Your task to perform on an android device: Look up the best rated 5.1 home theater speakers on Walmart. Image 0: 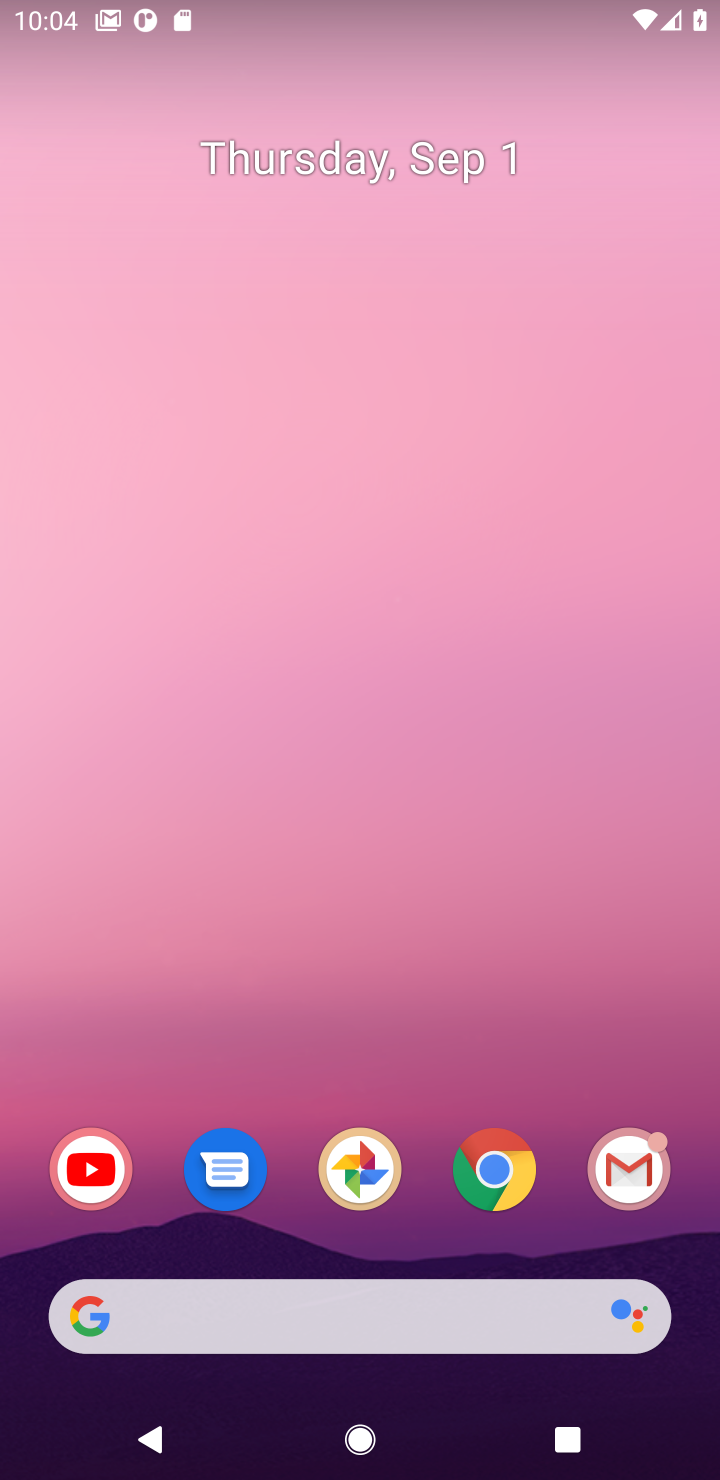
Step 0: drag from (430, 1133) to (434, 61)
Your task to perform on an android device: Look up the best rated 5.1 home theater speakers on Walmart. Image 1: 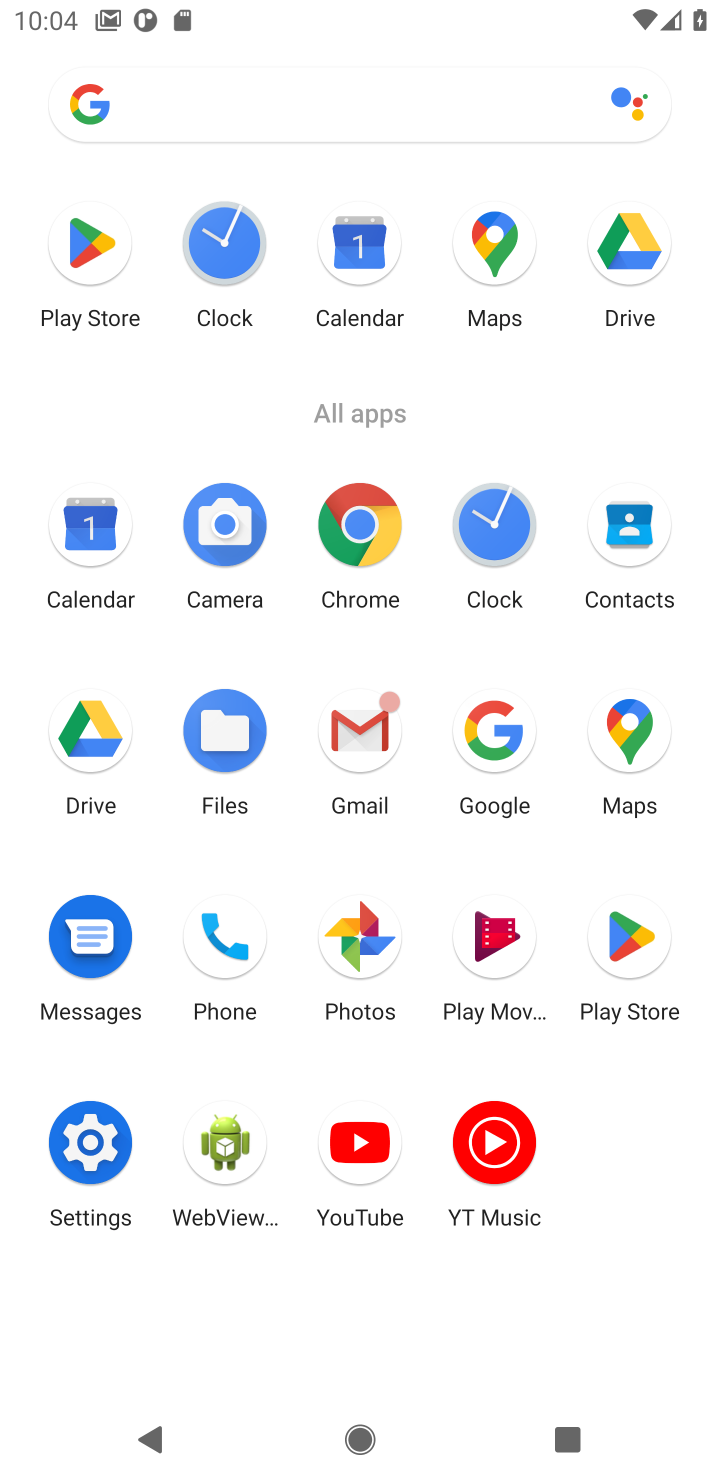
Step 1: click (357, 514)
Your task to perform on an android device: Look up the best rated 5.1 home theater speakers on Walmart. Image 2: 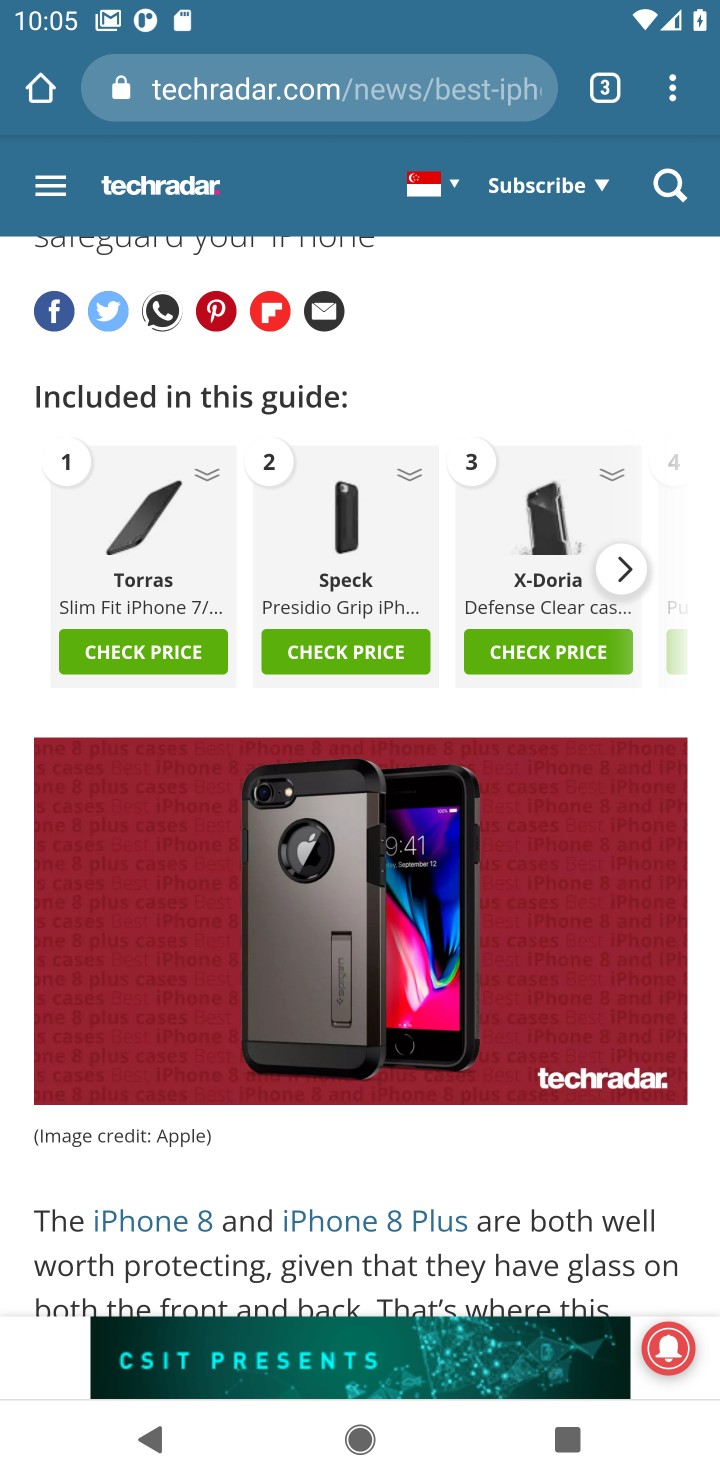
Step 2: click (236, 86)
Your task to perform on an android device: Look up the best rated 5.1 home theater speakers on Walmart. Image 3: 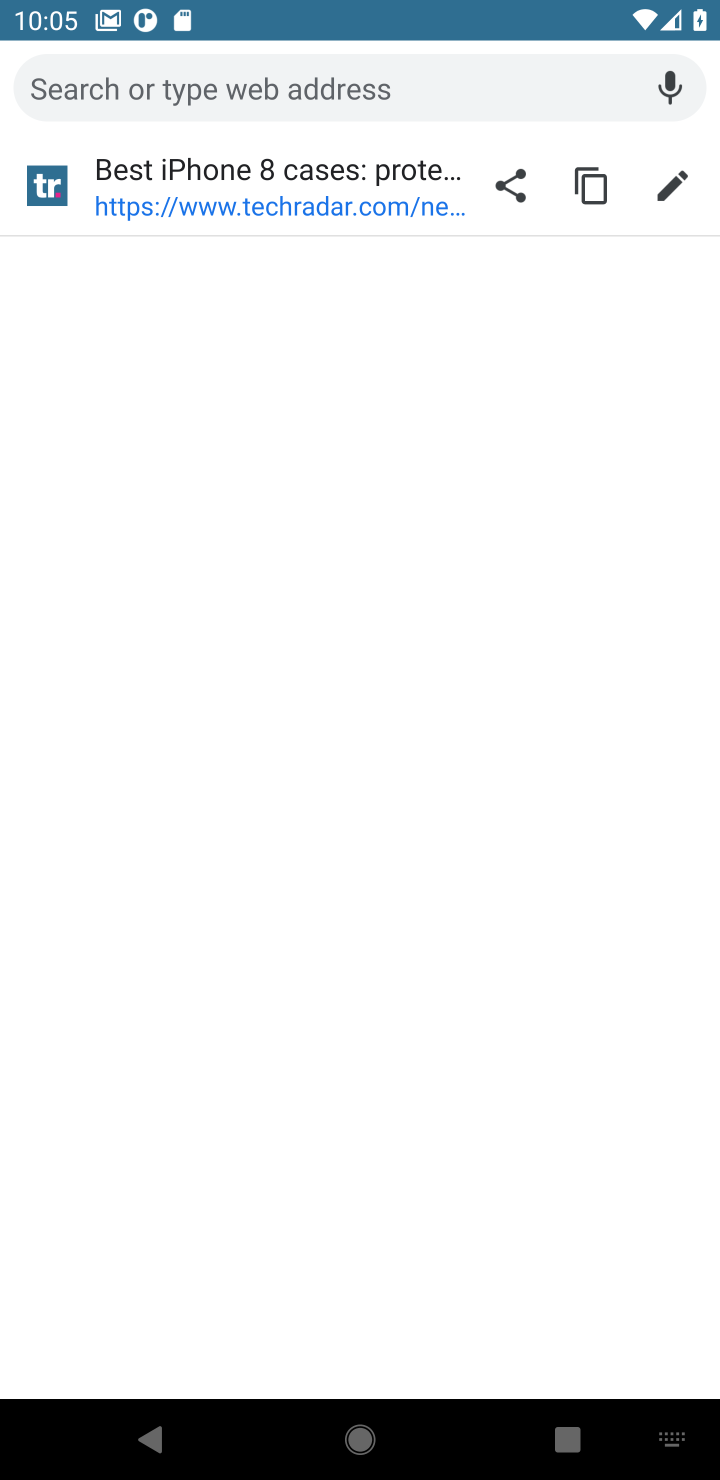
Step 3: type "best rated 5.1 home theater speakers on Walmart"
Your task to perform on an android device: Look up the best rated 5.1 home theater speakers on Walmart. Image 4: 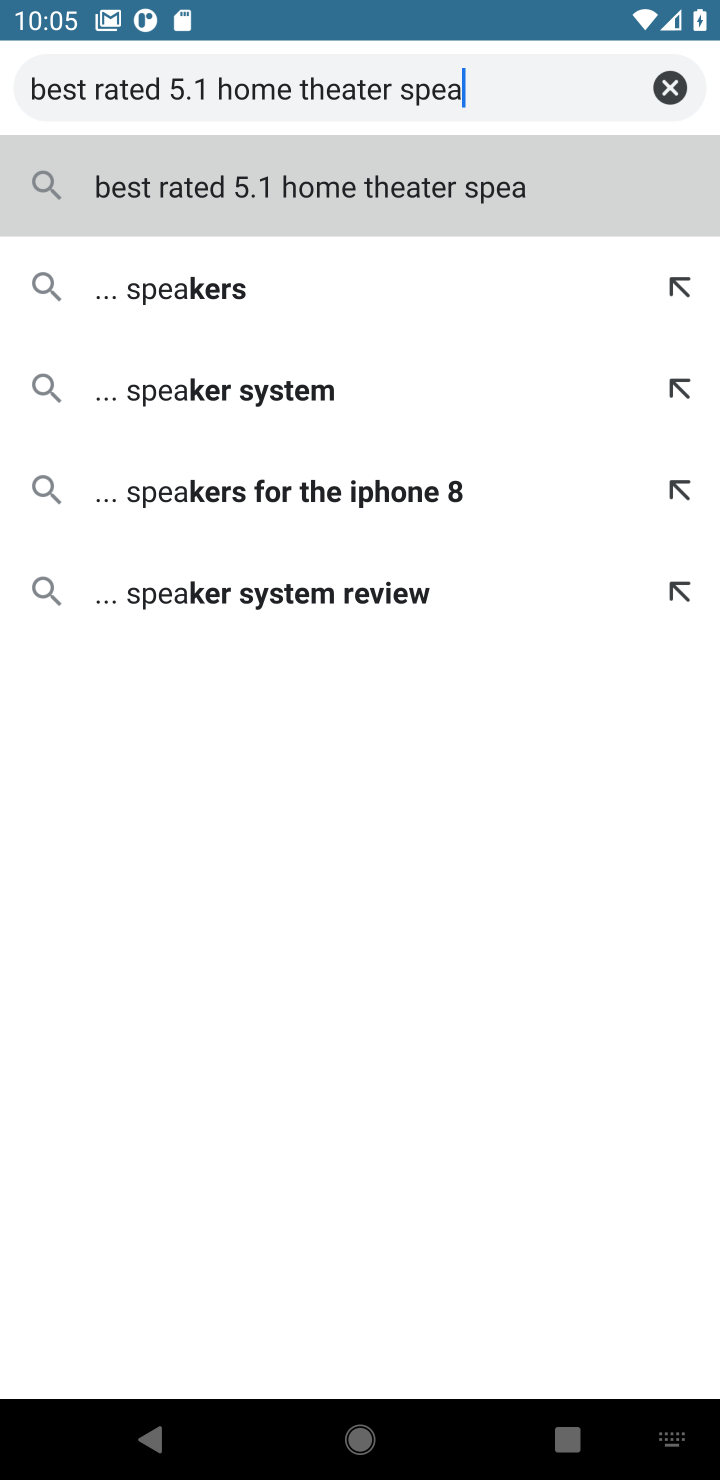
Step 4: type "kers on Walmart"
Your task to perform on an android device: Look up the best rated 5.1 home theater speakers on Walmart. Image 5: 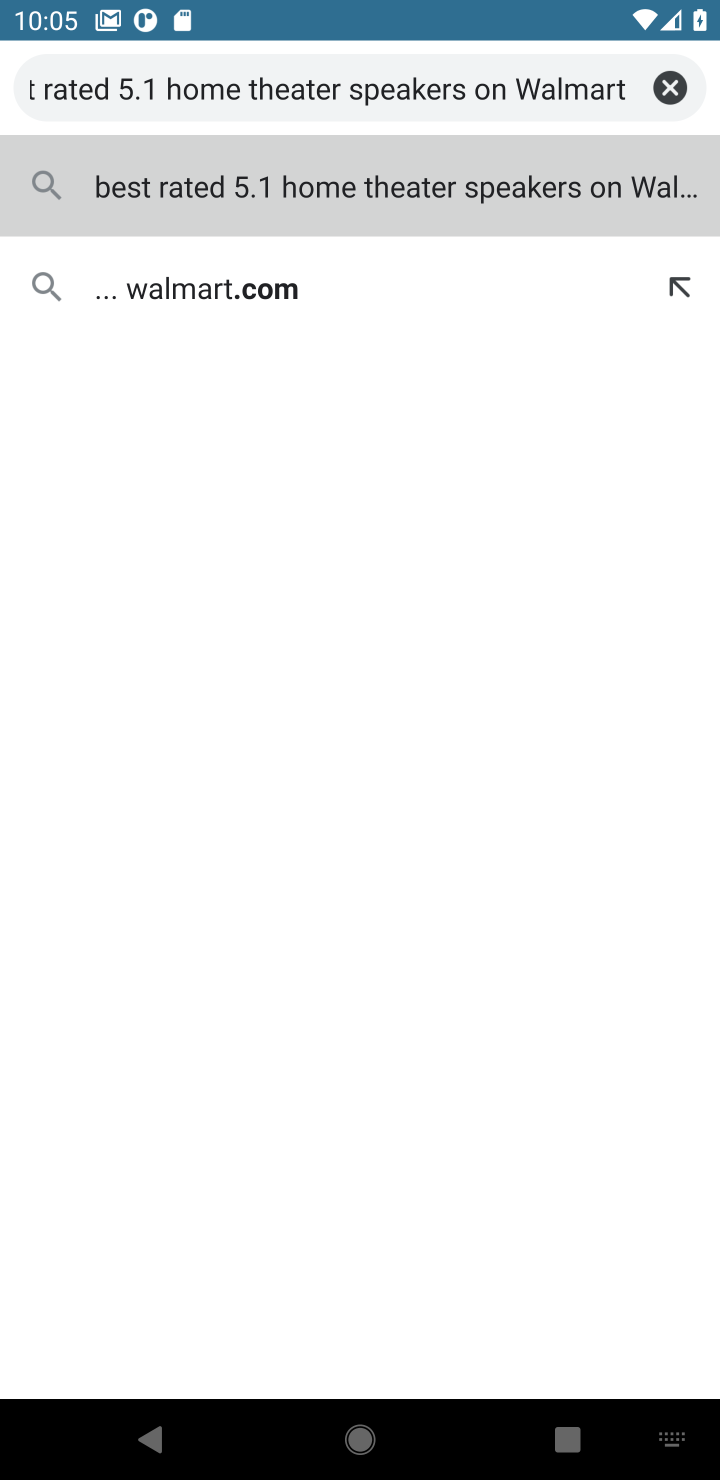
Step 5: click (417, 177)
Your task to perform on an android device: Look up the best rated 5.1 home theater speakers on Walmart. Image 6: 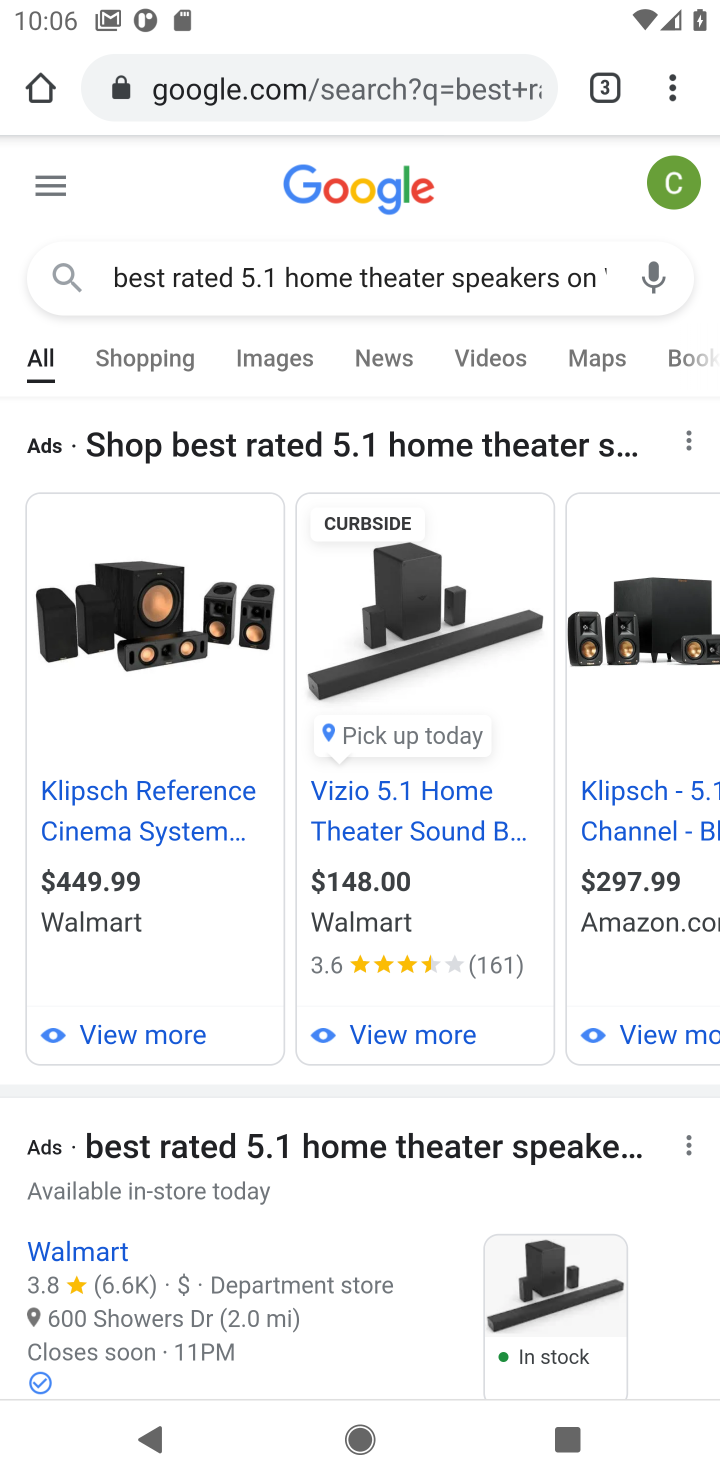
Step 6: drag from (307, 1226) to (295, 501)
Your task to perform on an android device: Look up the best rated 5.1 home theater speakers on Walmart. Image 7: 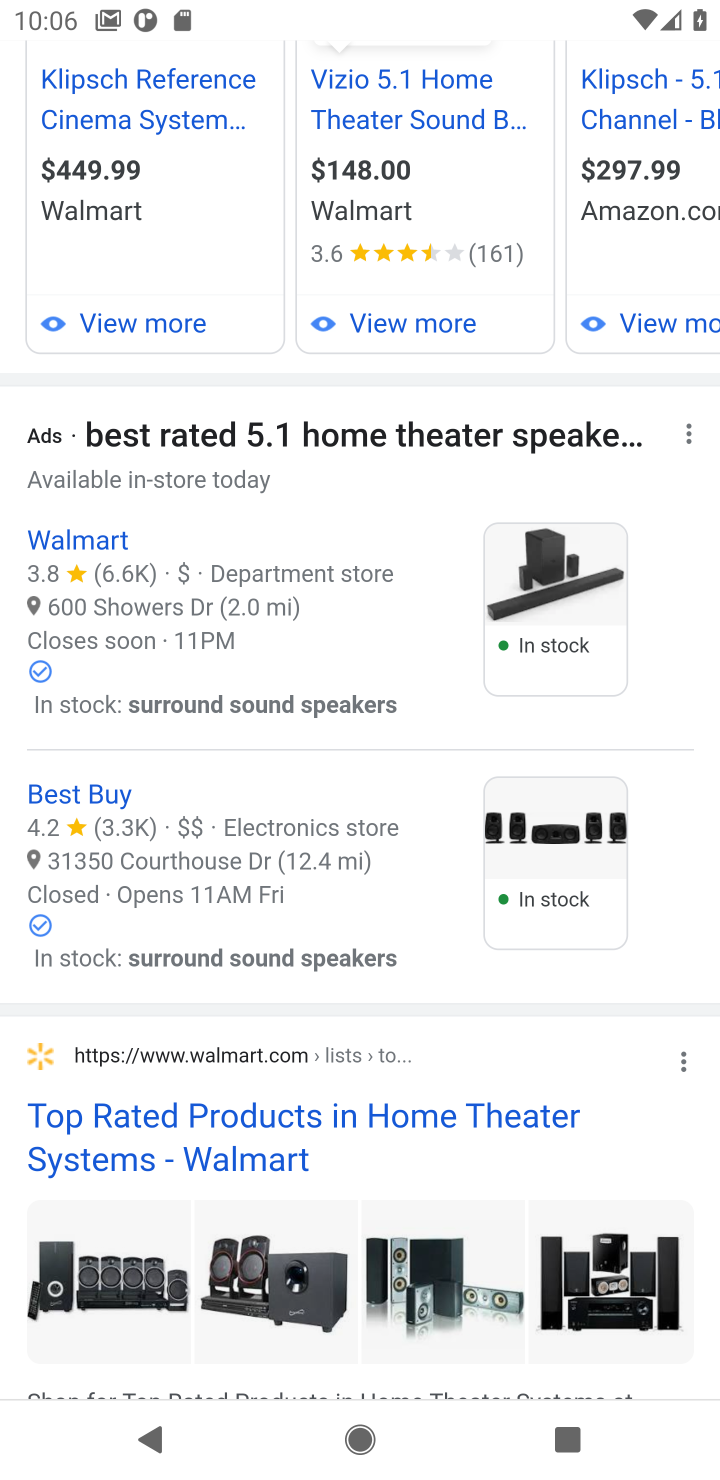
Step 7: drag from (351, 1204) to (386, 255)
Your task to perform on an android device: Look up the best rated 5.1 home theater speakers on Walmart. Image 8: 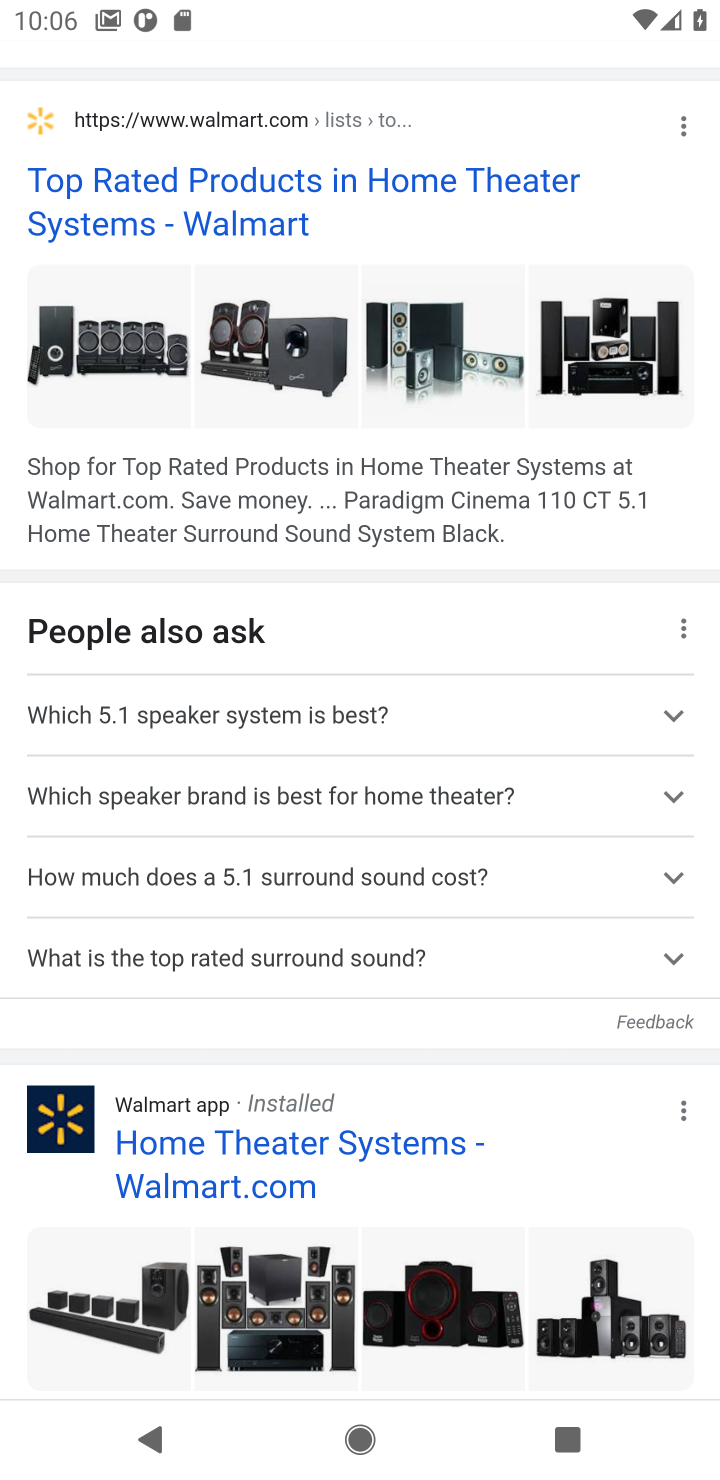
Step 8: drag from (348, 1127) to (298, 511)
Your task to perform on an android device: Look up the best rated 5.1 home theater speakers on Walmart. Image 9: 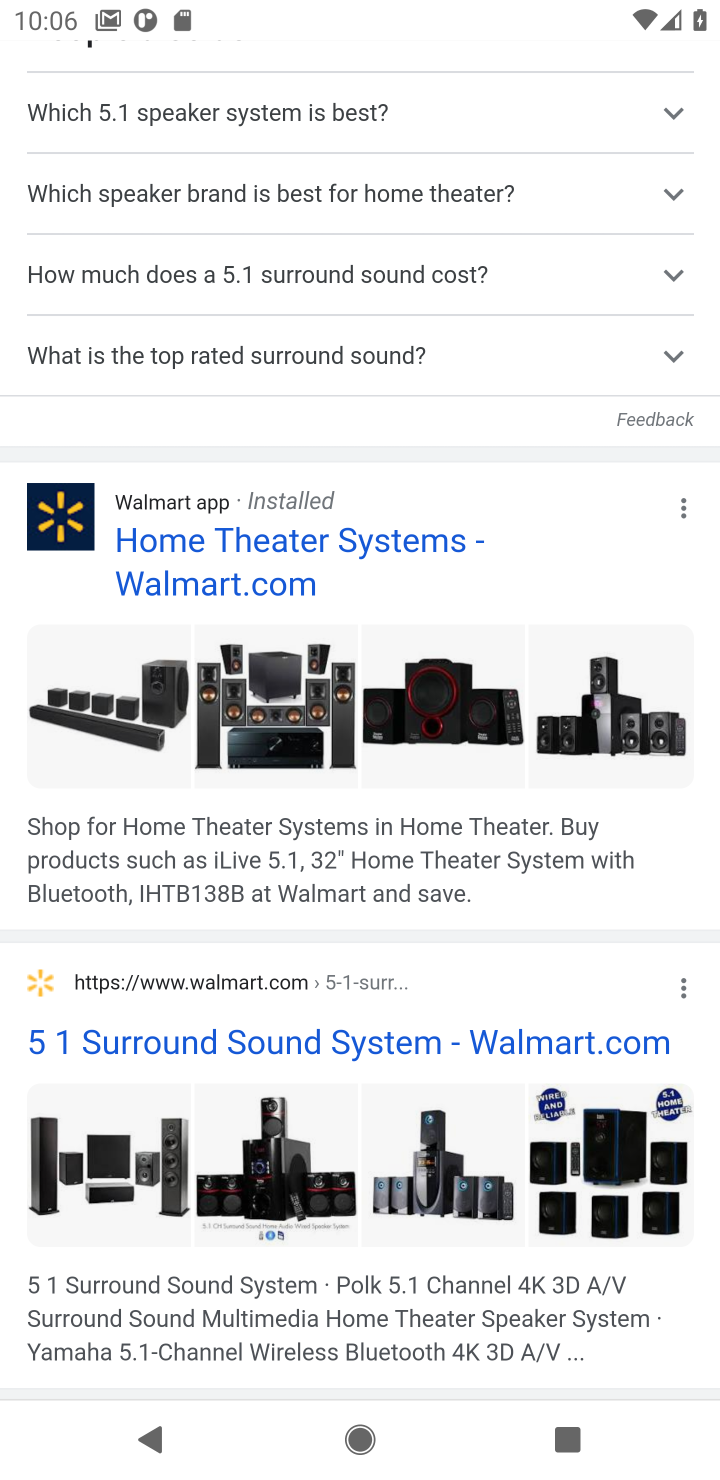
Step 9: click (287, 1048)
Your task to perform on an android device: Look up the best rated 5.1 home theater speakers on Walmart. Image 10: 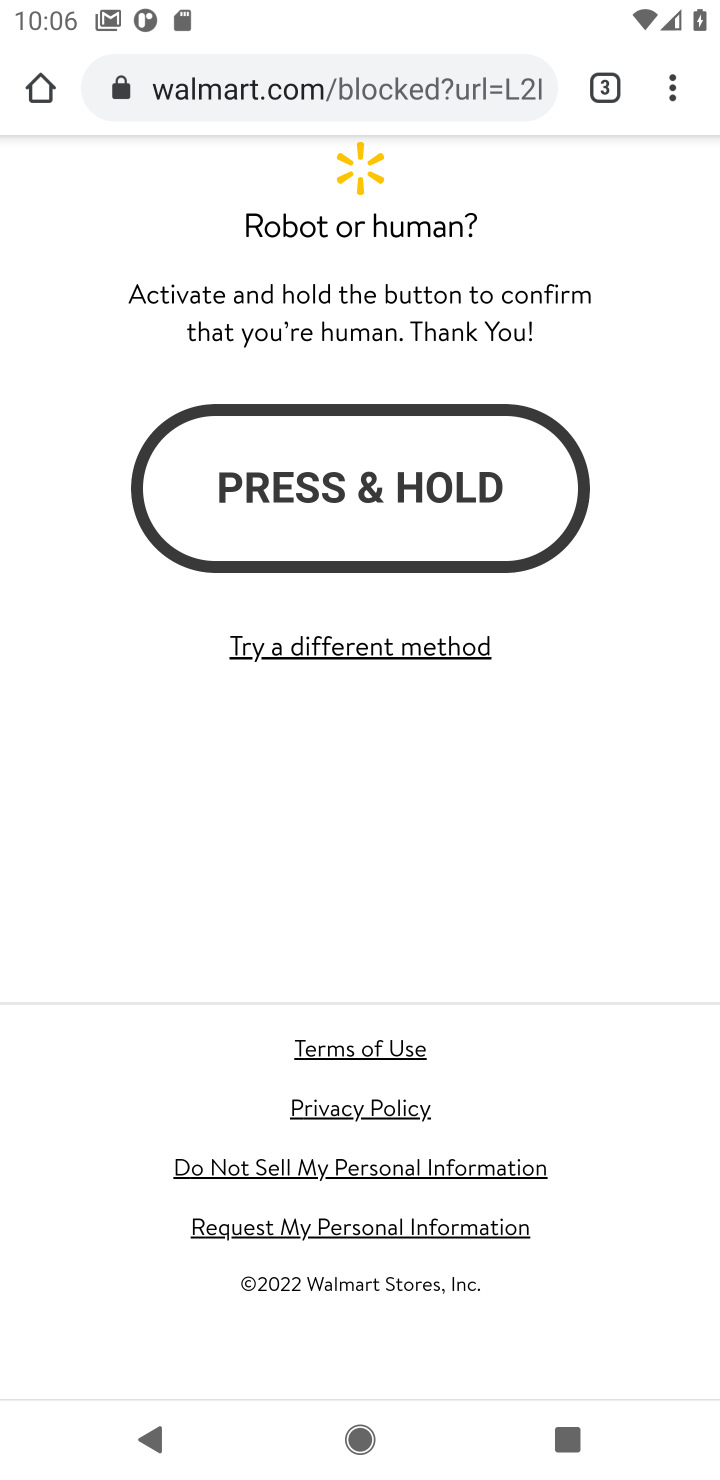
Step 10: drag from (308, 1144) to (284, 447)
Your task to perform on an android device: Look up the best rated 5.1 home theater speakers on Walmart. Image 11: 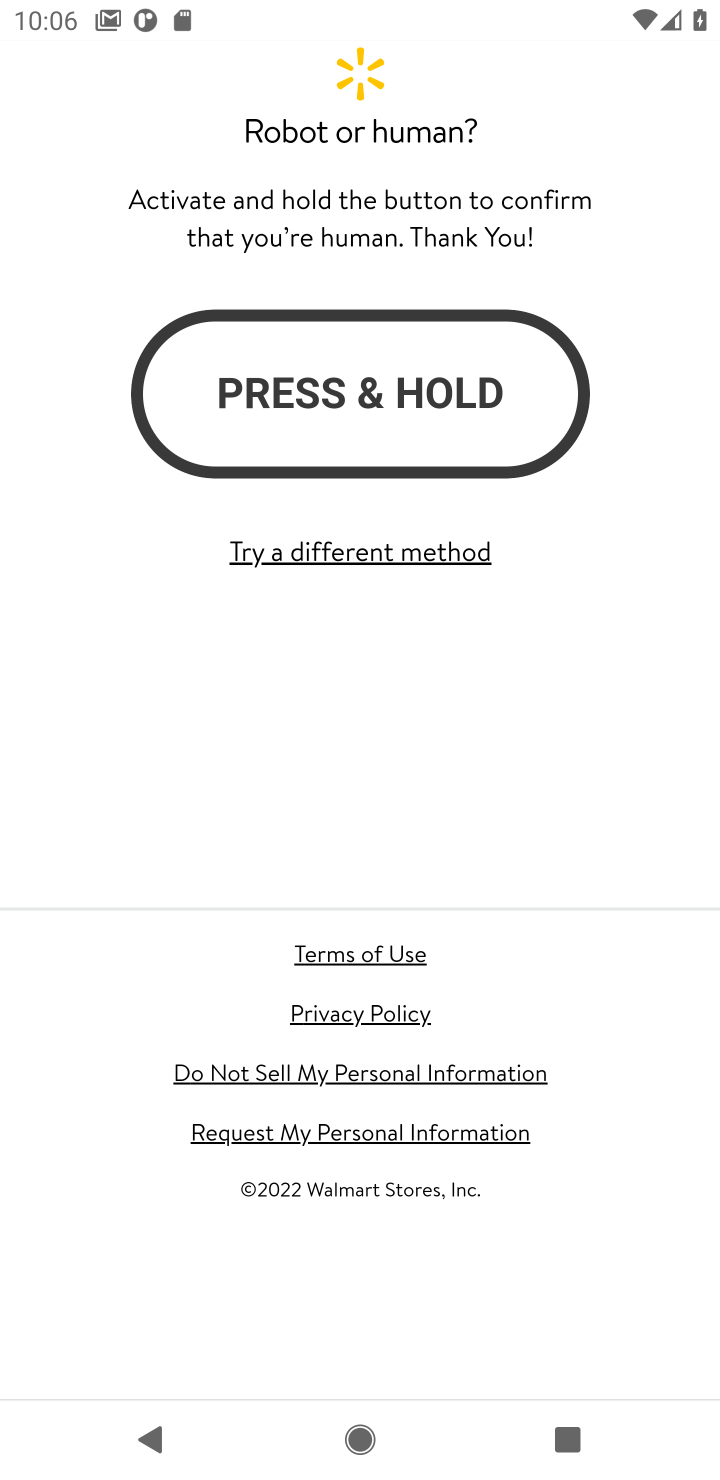
Step 11: press back button
Your task to perform on an android device: Look up the best rated 5.1 home theater speakers on Walmart. Image 12: 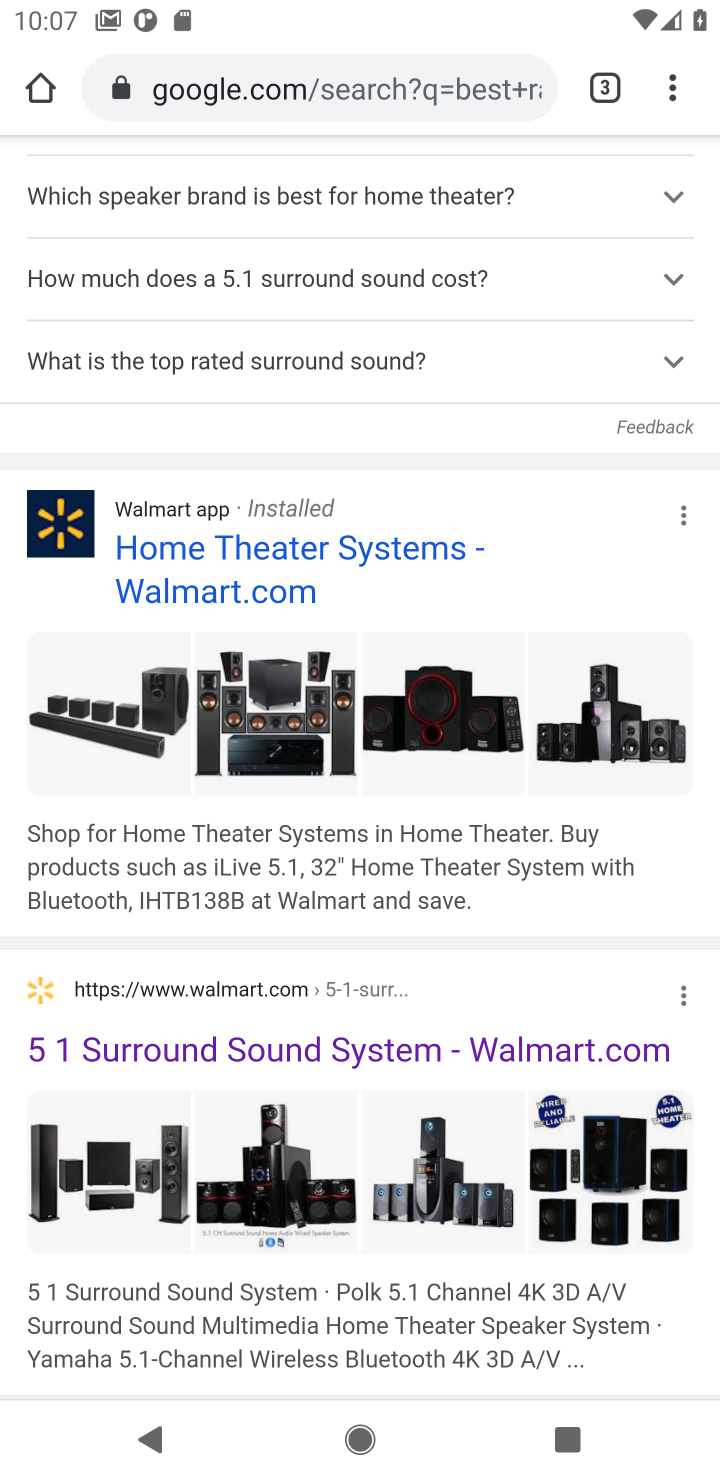
Step 12: drag from (270, 1180) to (329, 198)
Your task to perform on an android device: Look up the best rated 5.1 home theater speakers on Walmart. Image 13: 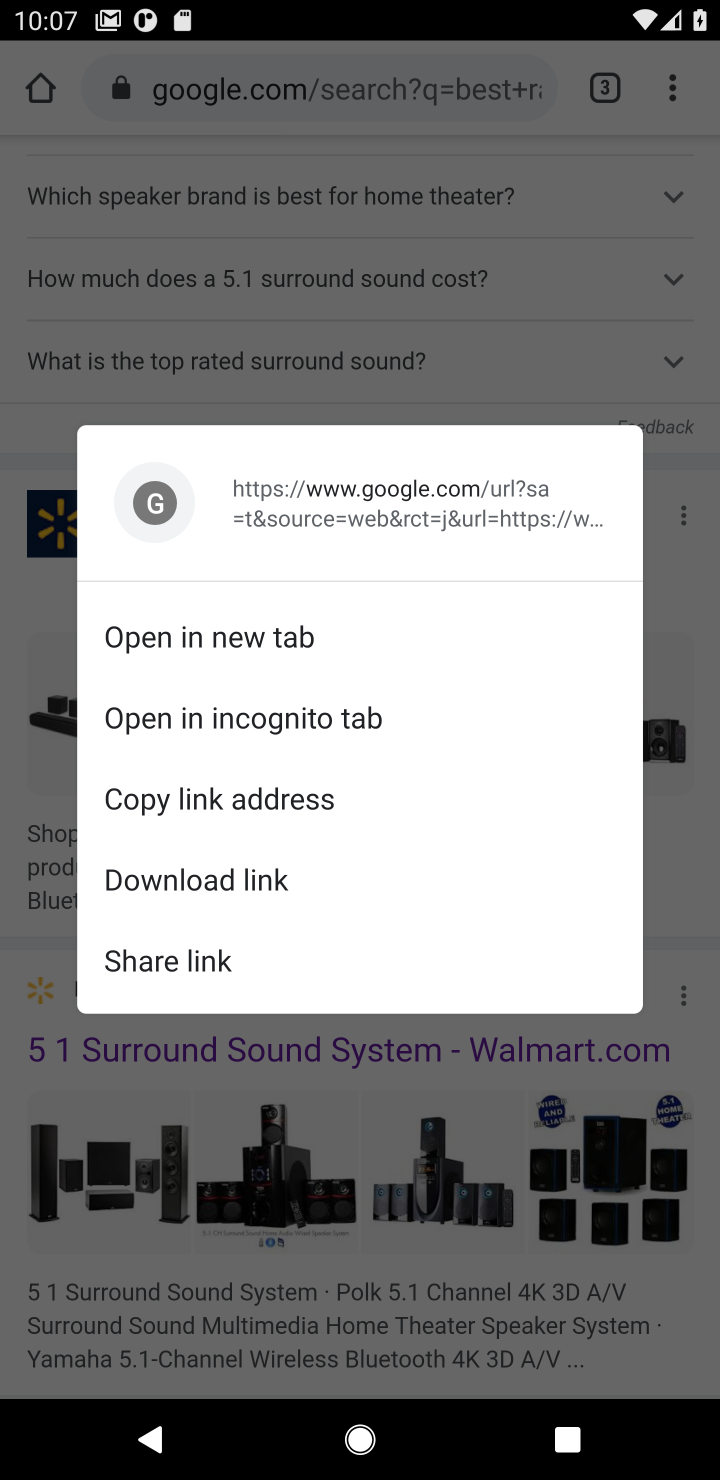
Step 13: click (41, 1012)
Your task to perform on an android device: Look up the best rated 5.1 home theater speakers on Walmart. Image 14: 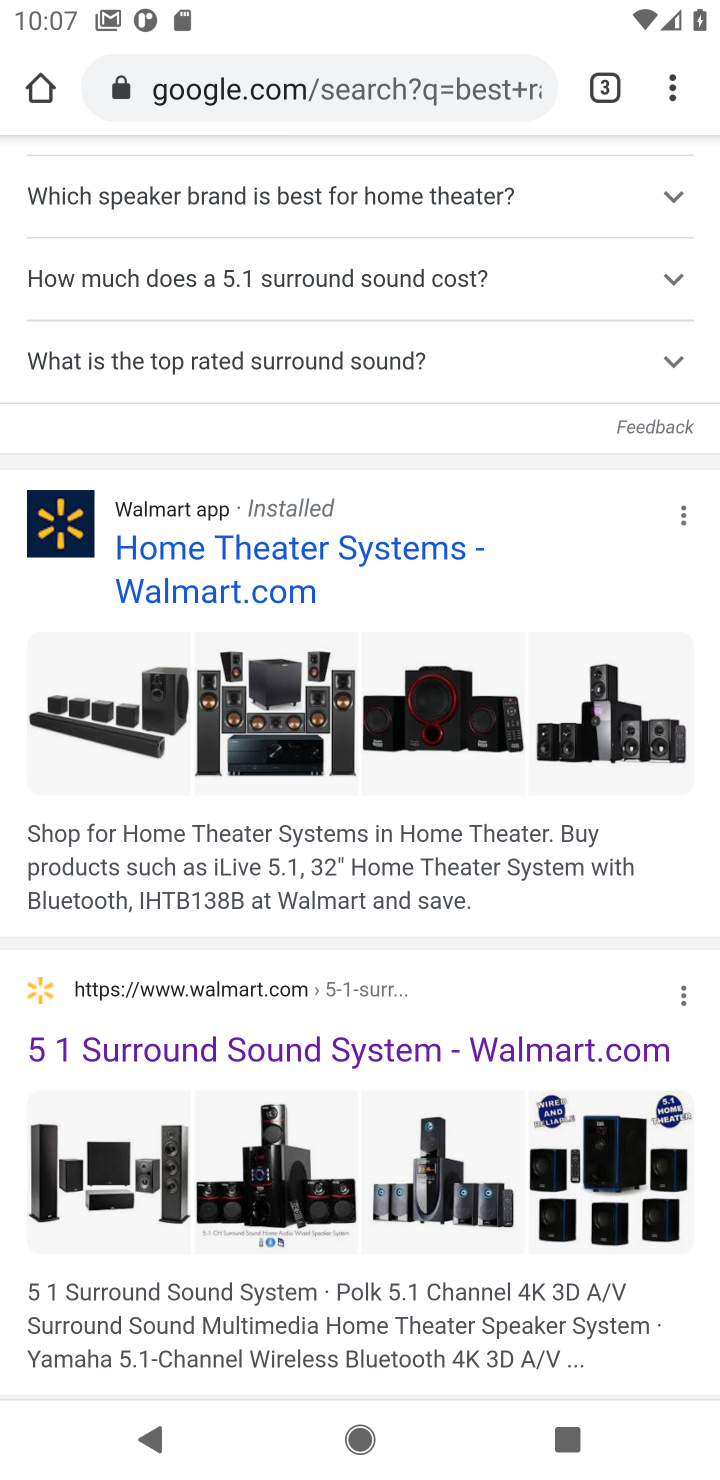
Step 14: drag from (479, 1277) to (523, 192)
Your task to perform on an android device: Look up the best rated 5.1 home theater speakers on Walmart. Image 15: 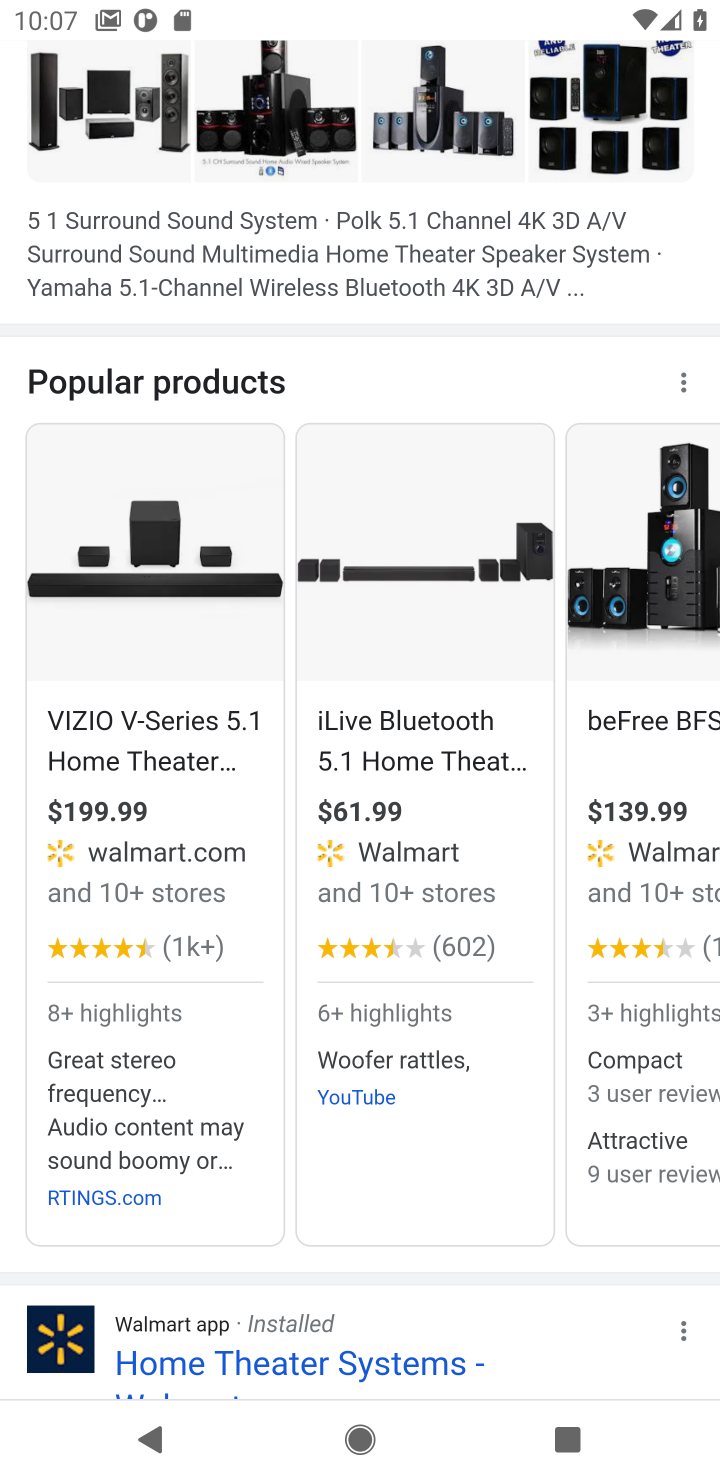
Step 15: drag from (452, 1332) to (468, 710)
Your task to perform on an android device: Look up the best rated 5.1 home theater speakers on Walmart. Image 16: 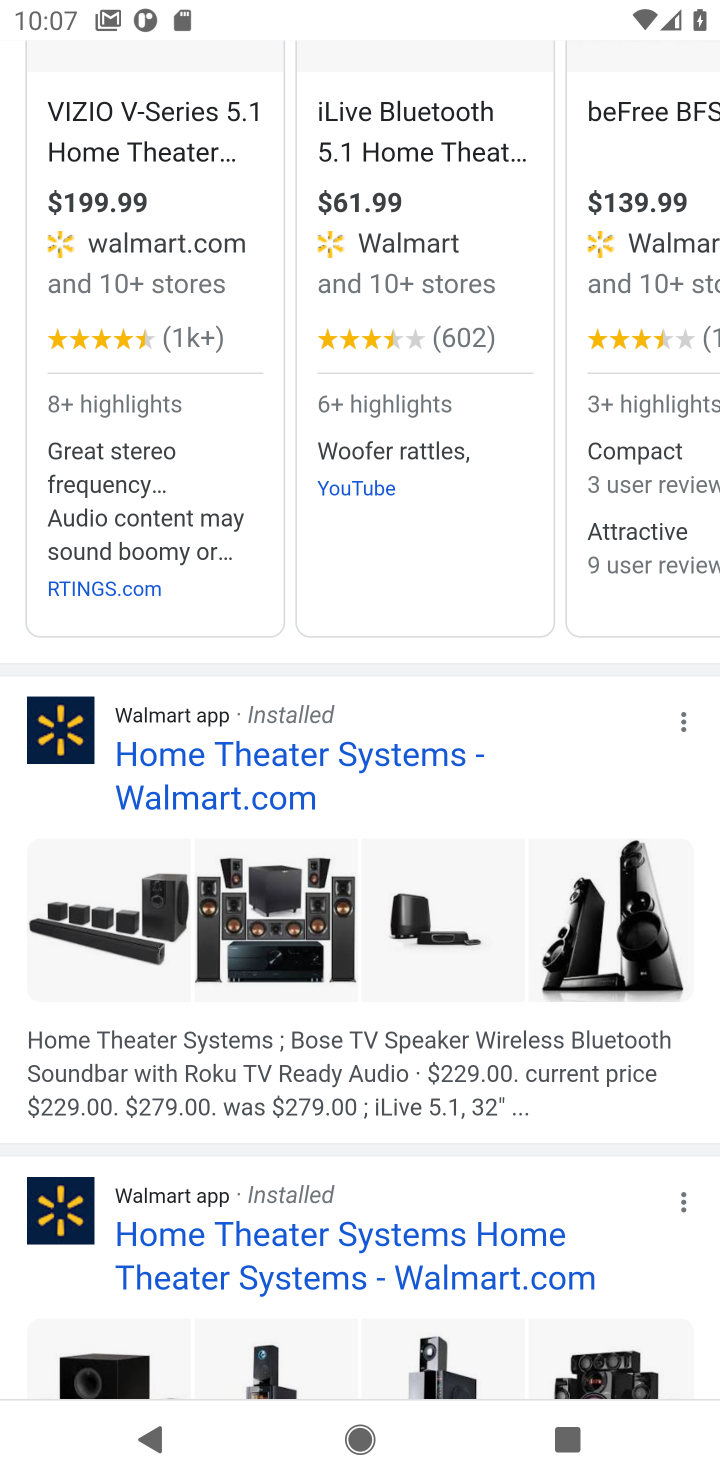
Step 16: drag from (428, 297) to (397, 1451)
Your task to perform on an android device: Look up the best rated 5.1 home theater speakers on Walmart. Image 17: 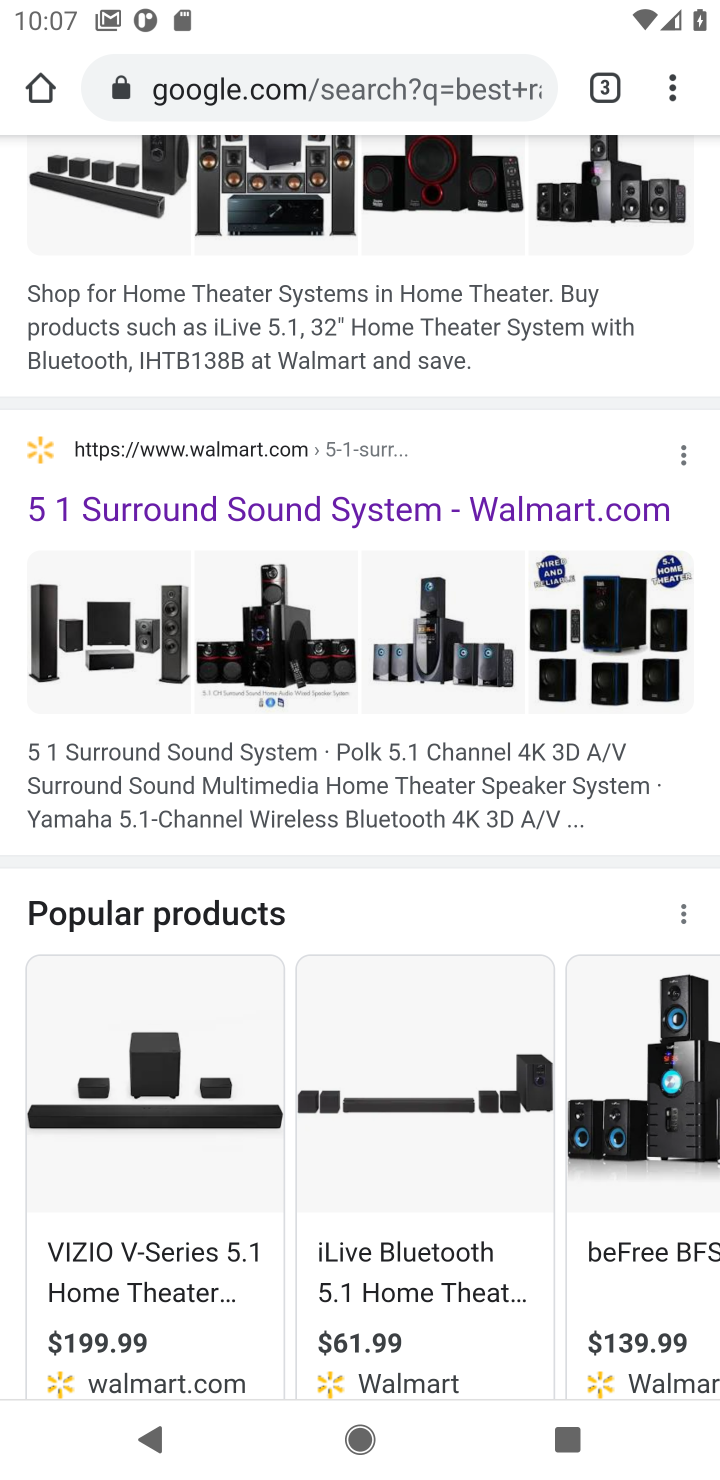
Step 17: drag from (426, 928) to (421, 1469)
Your task to perform on an android device: Look up the best rated 5.1 home theater speakers on Walmart. Image 18: 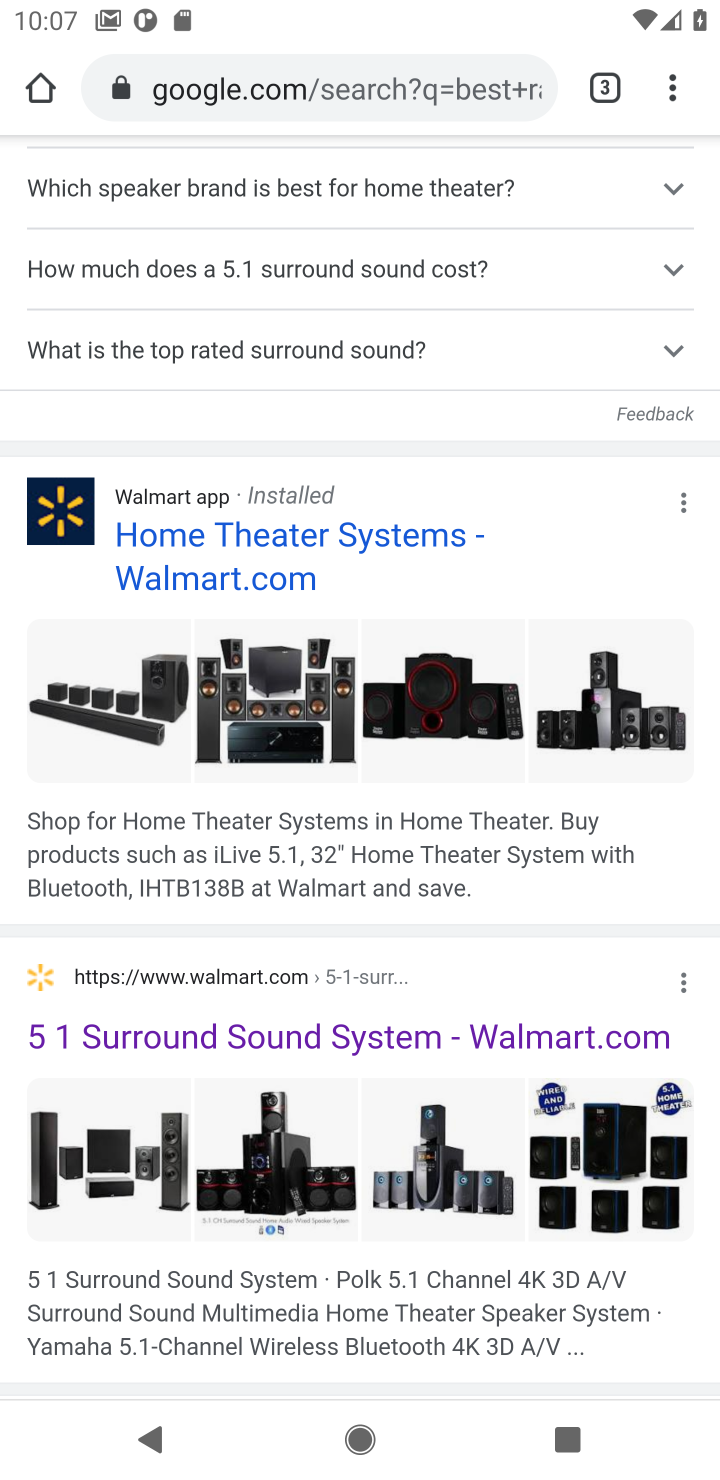
Step 18: drag from (522, 265) to (514, 1365)
Your task to perform on an android device: Look up the best rated 5.1 home theater speakers on Walmart. Image 19: 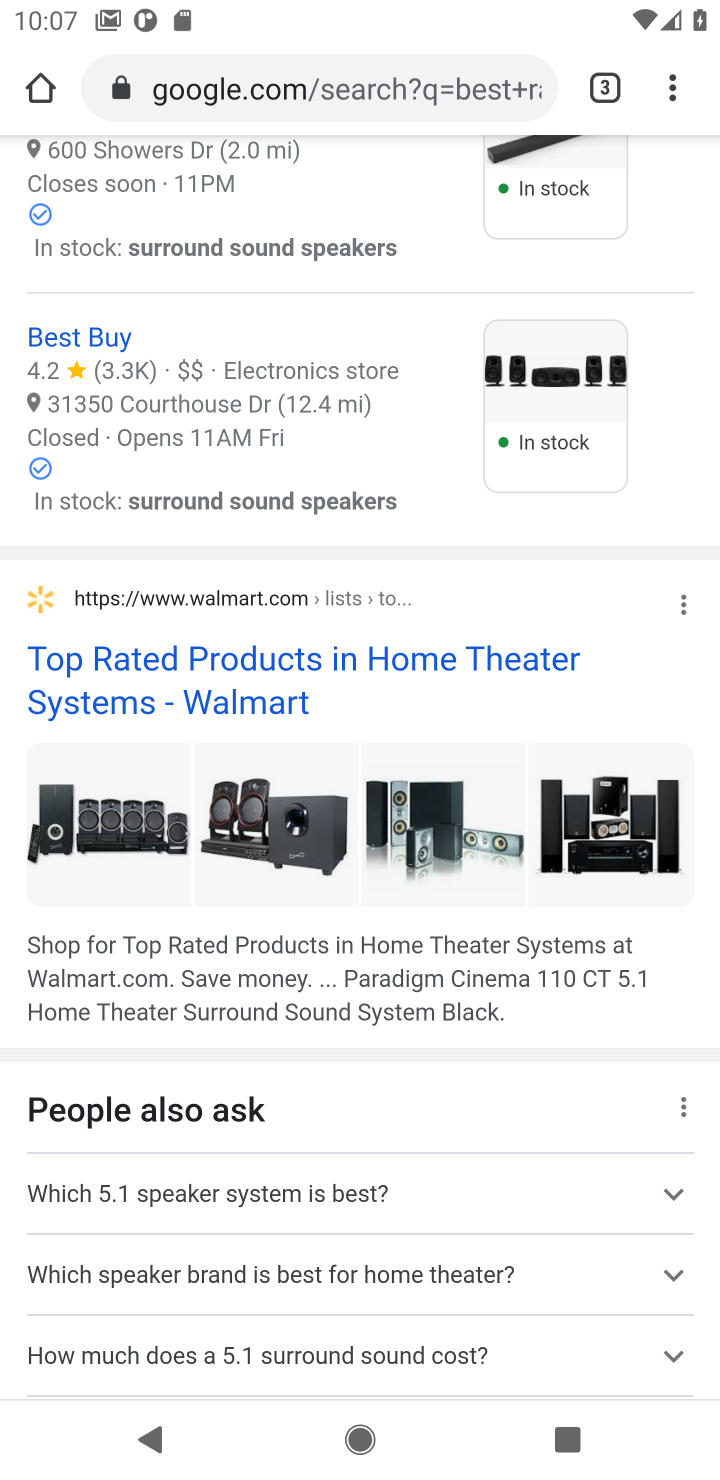
Step 19: click (265, 658)
Your task to perform on an android device: Look up the best rated 5.1 home theater speakers on Walmart. Image 20: 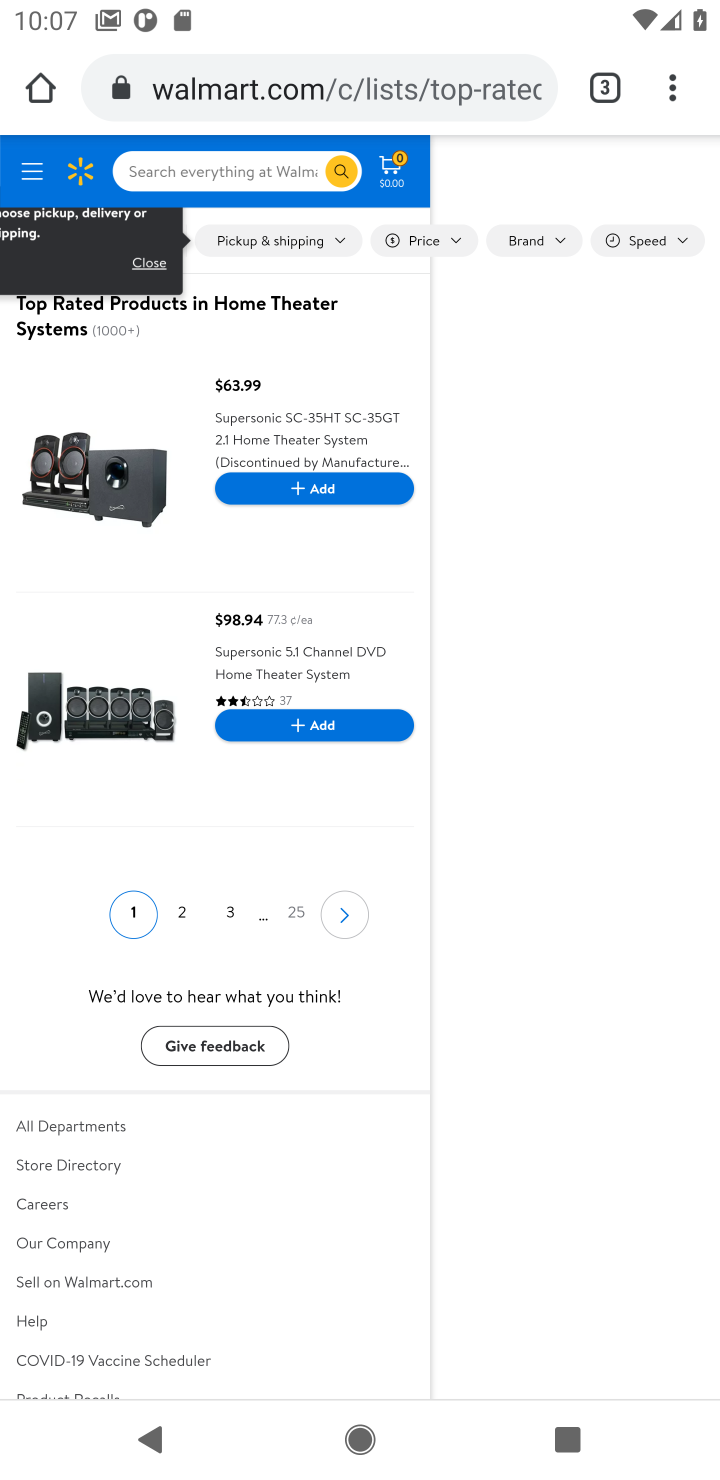
Step 20: task complete